Your task to perform on an android device: empty trash in the gmail app Image 0: 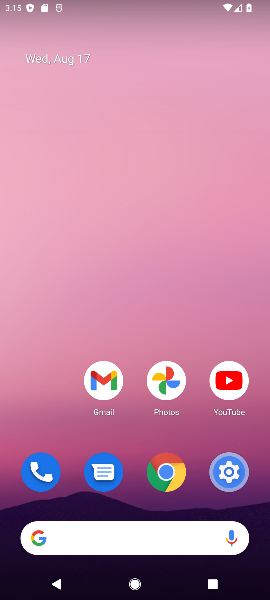
Step 0: click (115, 380)
Your task to perform on an android device: empty trash in the gmail app Image 1: 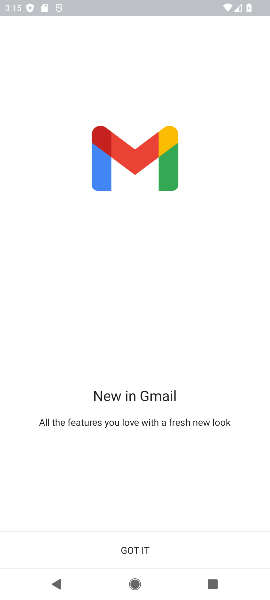
Step 1: click (157, 542)
Your task to perform on an android device: empty trash in the gmail app Image 2: 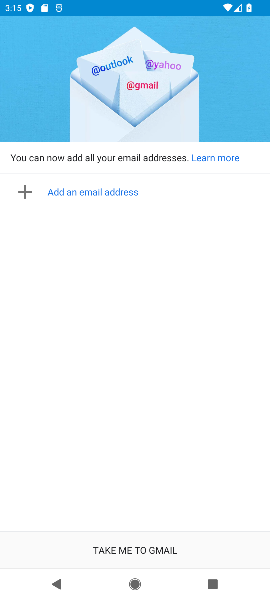
Step 2: click (157, 541)
Your task to perform on an android device: empty trash in the gmail app Image 3: 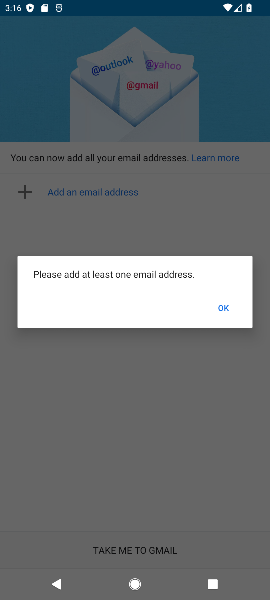
Step 3: task complete